Your task to perform on an android device: Search for the top rated book on goodreads. Image 0: 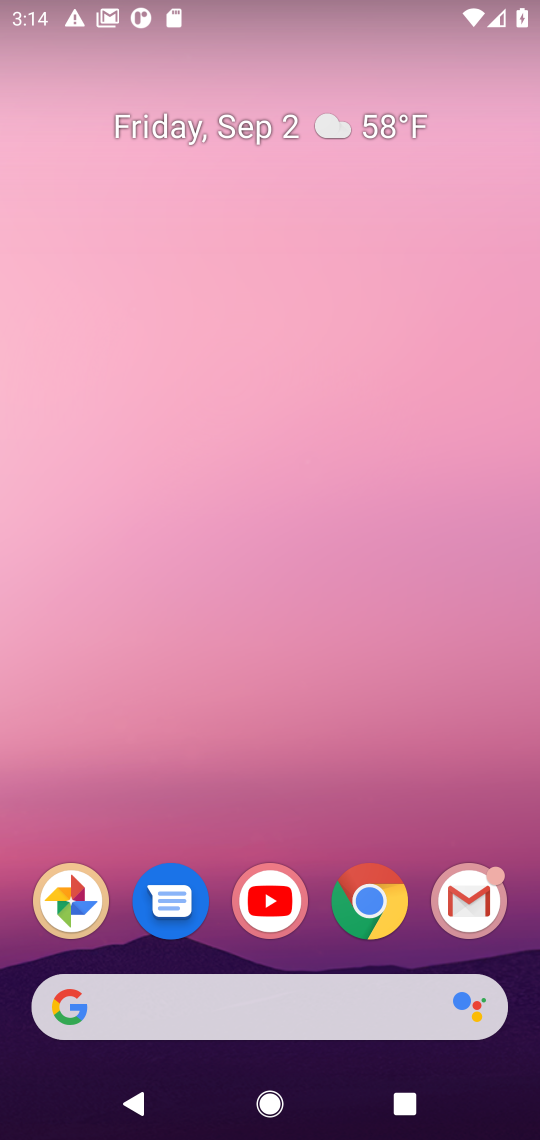
Step 0: drag from (306, 821) to (308, 43)
Your task to perform on an android device: Search for the top rated book on goodreads. Image 1: 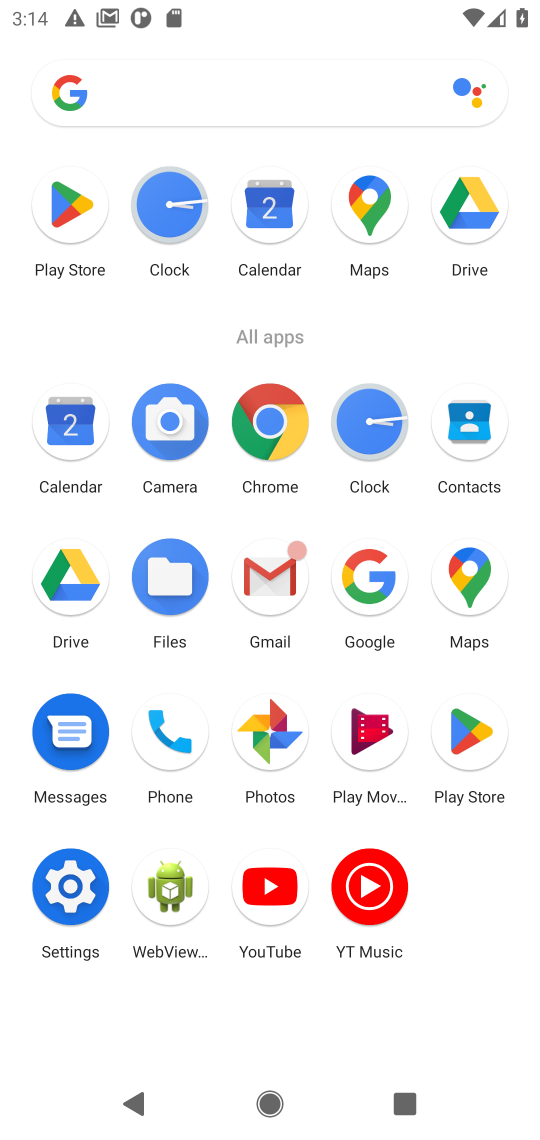
Step 1: click (274, 426)
Your task to perform on an android device: Search for the top rated book on goodreads. Image 2: 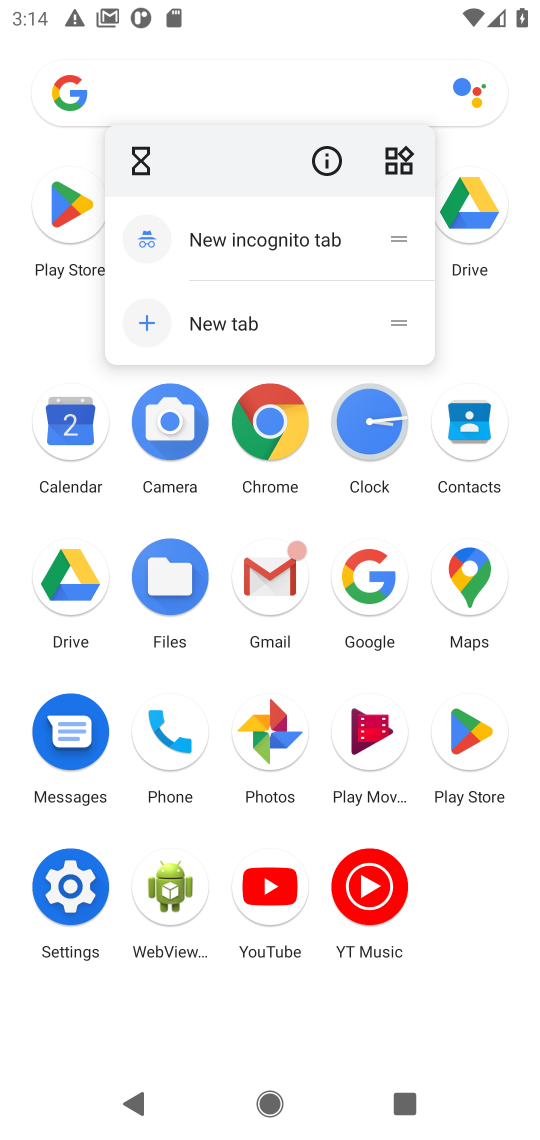
Step 2: click (271, 426)
Your task to perform on an android device: Search for the top rated book on goodreads. Image 3: 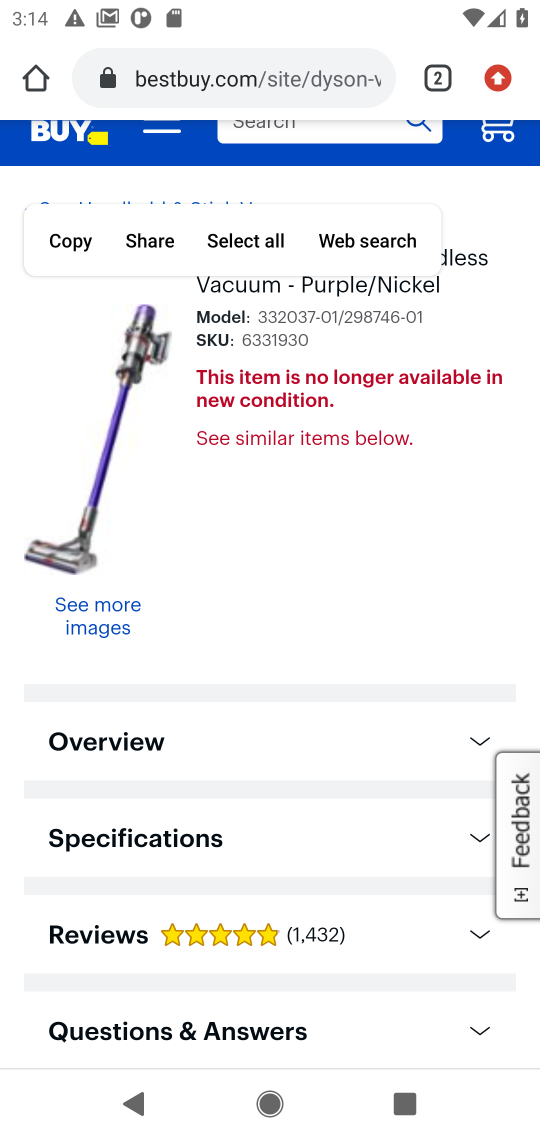
Step 3: click (254, 72)
Your task to perform on an android device: Search for the top rated book on goodreads. Image 4: 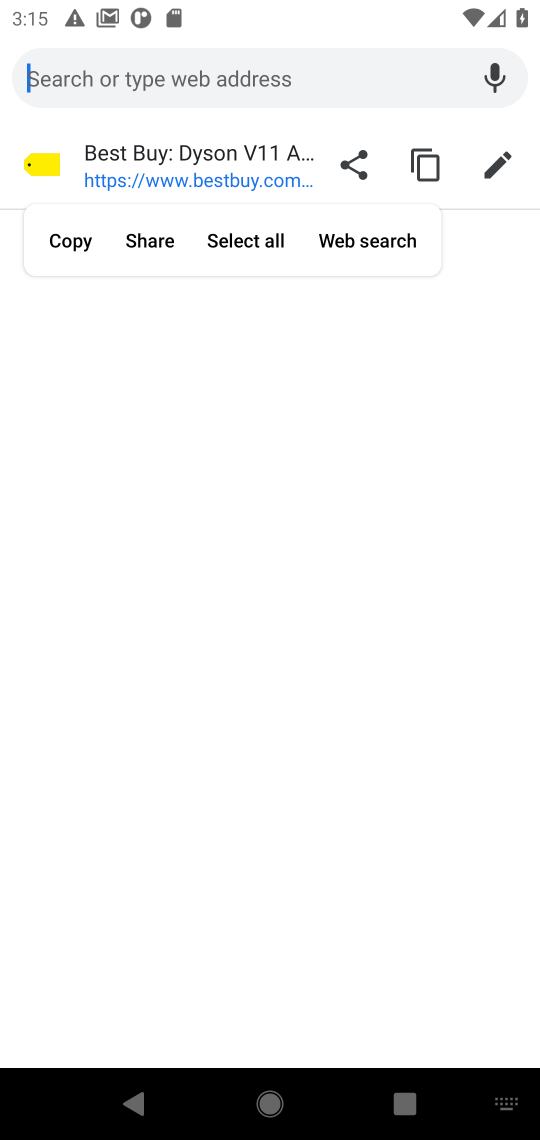
Step 4: type "top rated book on goodreads"
Your task to perform on an android device: Search for the top rated book on goodreads. Image 5: 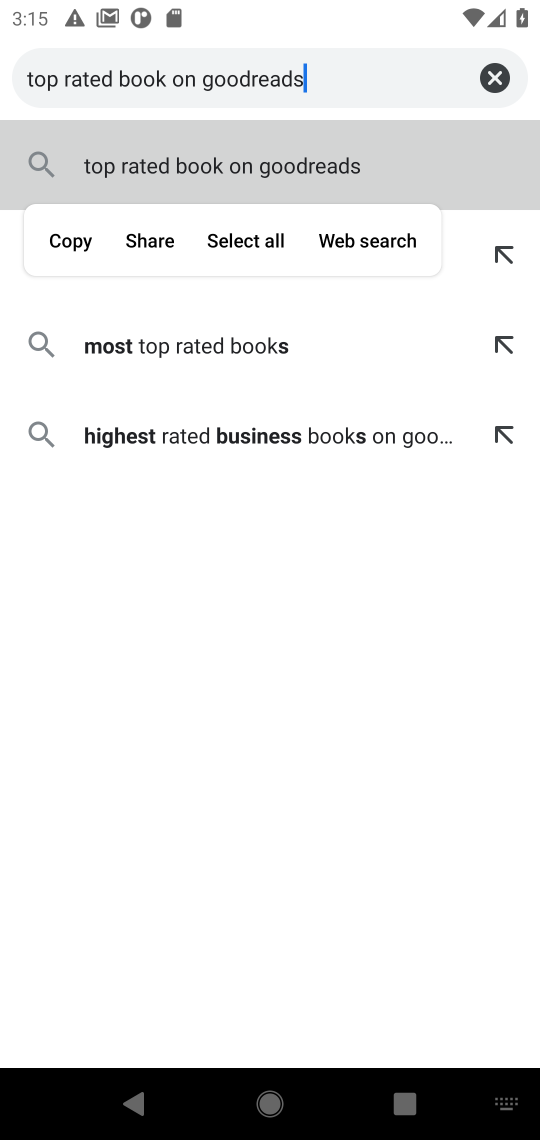
Step 5: press enter
Your task to perform on an android device: Search for the top rated book on goodreads. Image 6: 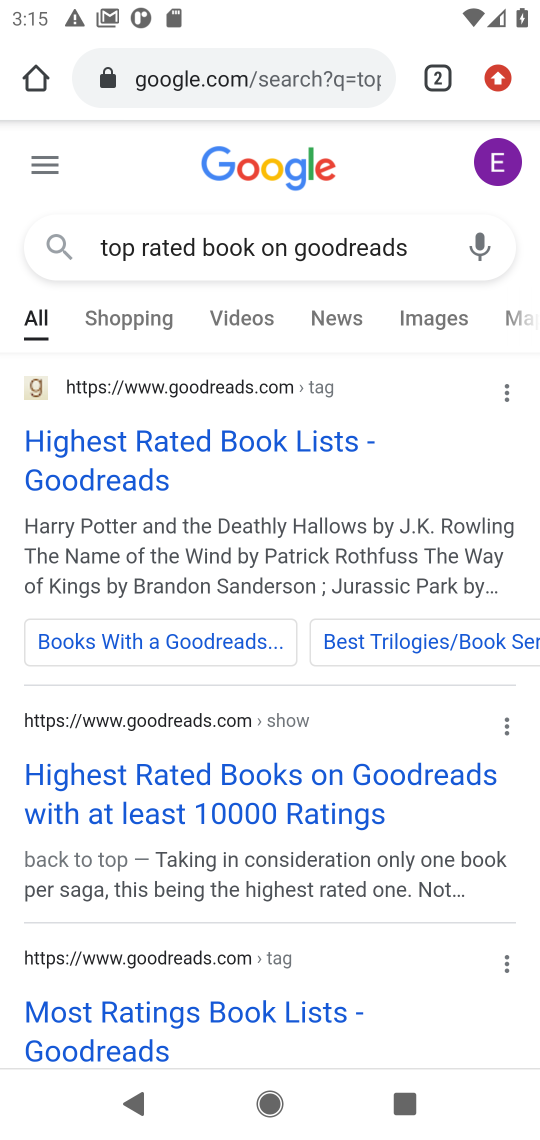
Step 6: click (327, 432)
Your task to perform on an android device: Search for the top rated book on goodreads. Image 7: 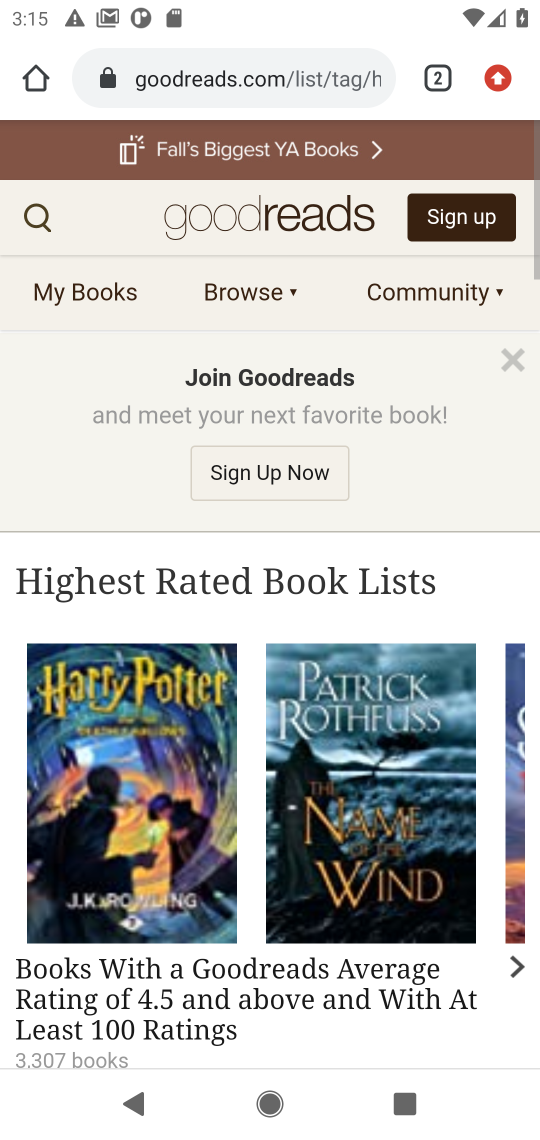
Step 7: task complete